Your task to perform on an android device: turn off wifi Image 0: 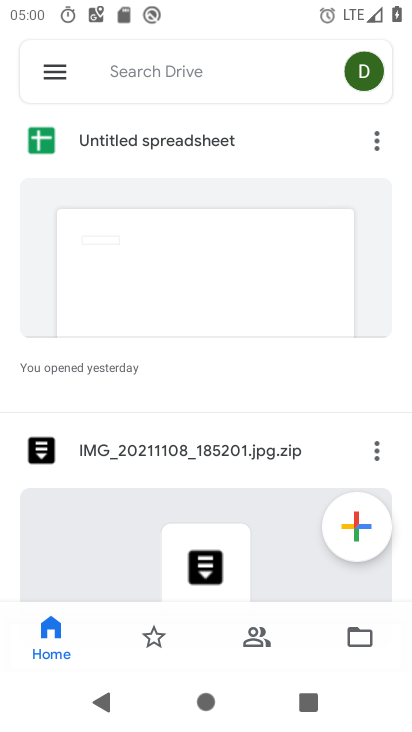
Step 0: drag from (177, 18) to (192, 603)
Your task to perform on an android device: turn off wifi Image 1: 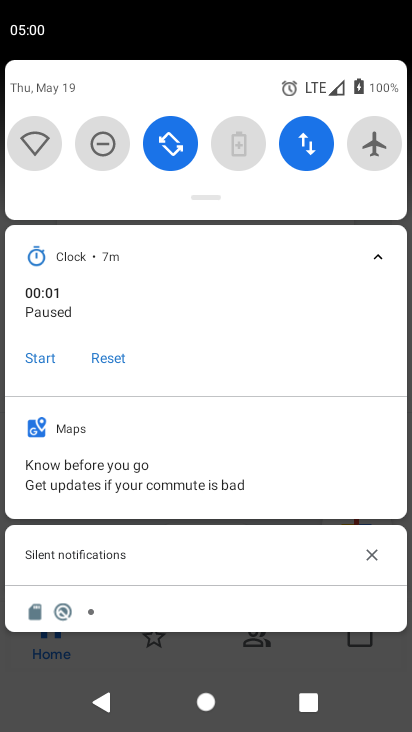
Step 1: task complete